Your task to perform on an android device: turn pop-ups on in chrome Image 0: 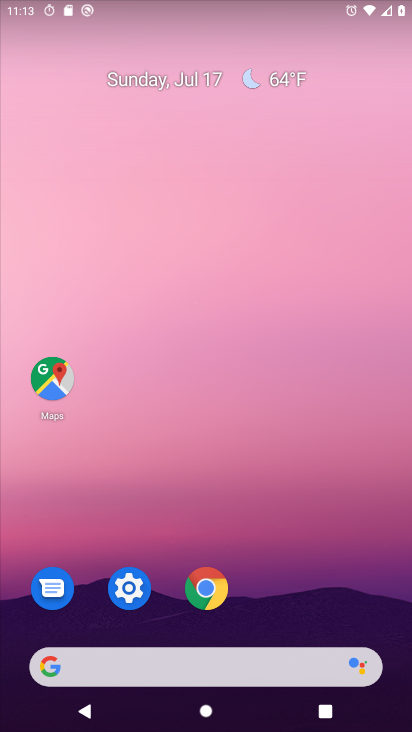
Step 0: drag from (247, 640) to (226, 207)
Your task to perform on an android device: turn pop-ups on in chrome Image 1: 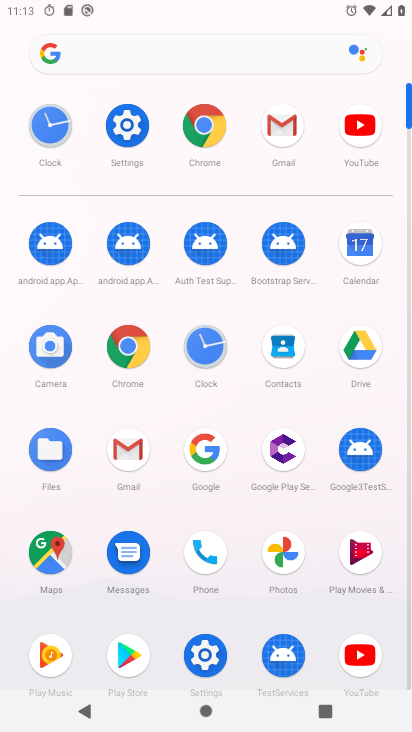
Step 1: click (219, 118)
Your task to perform on an android device: turn pop-ups on in chrome Image 2: 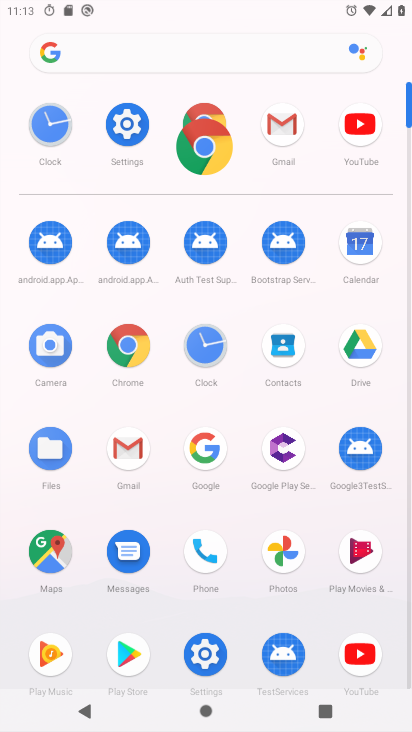
Step 2: click (210, 120)
Your task to perform on an android device: turn pop-ups on in chrome Image 3: 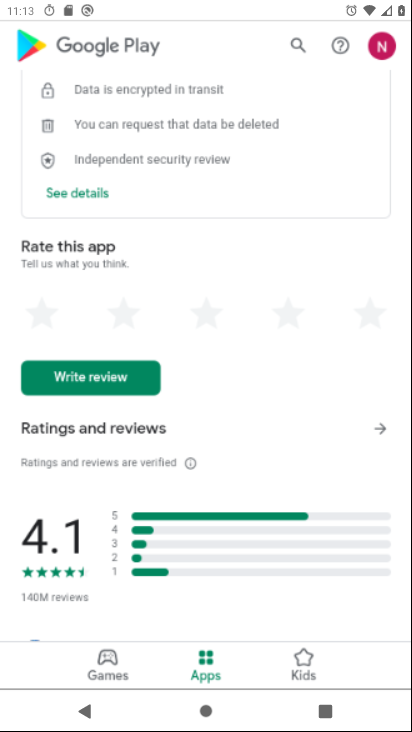
Step 3: click (210, 120)
Your task to perform on an android device: turn pop-ups on in chrome Image 4: 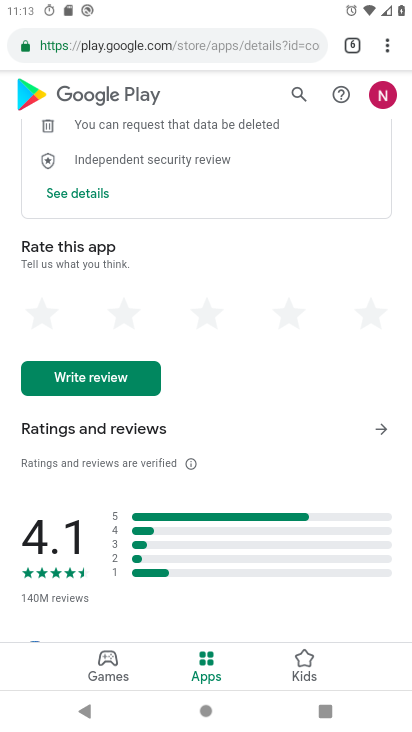
Step 4: press back button
Your task to perform on an android device: turn pop-ups on in chrome Image 5: 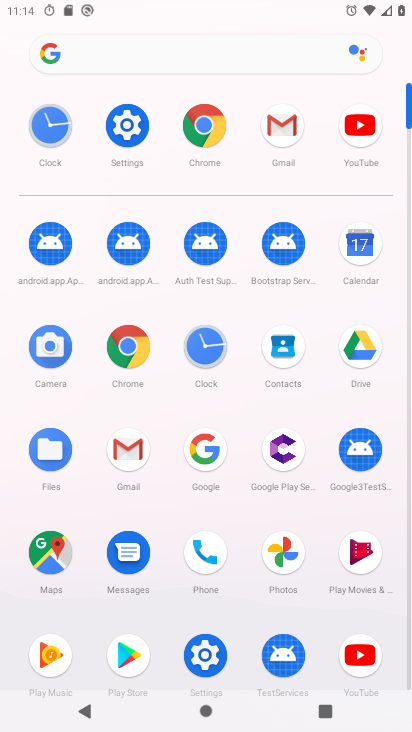
Step 5: click (199, 124)
Your task to perform on an android device: turn pop-ups on in chrome Image 6: 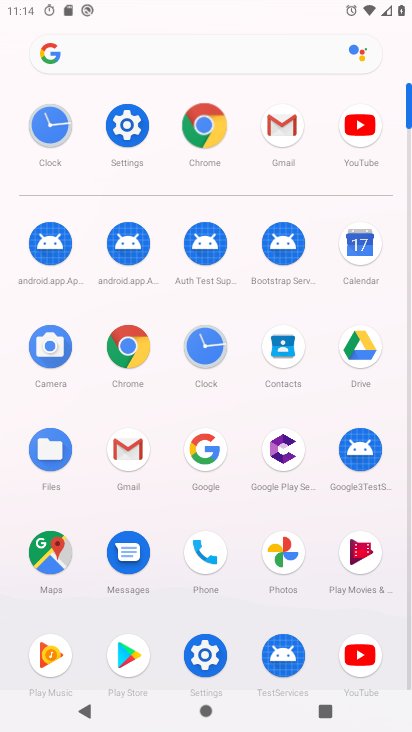
Step 6: click (199, 124)
Your task to perform on an android device: turn pop-ups on in chrome Image 7: 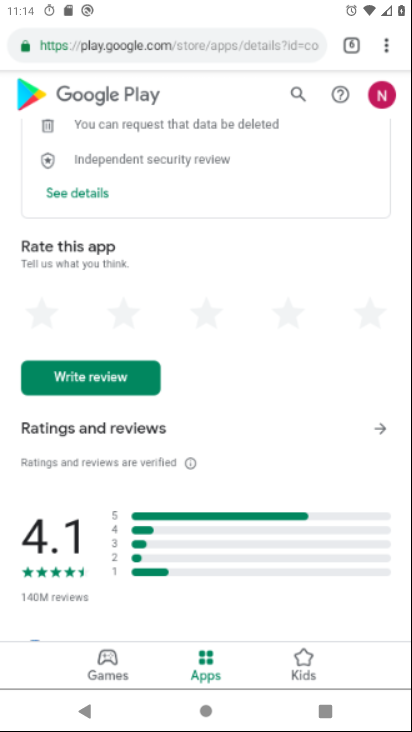
Step 7: drag from (393, 42) to (205, 546)
Your task to perform on an android device: turn pop-ups on in chrome Image 8: 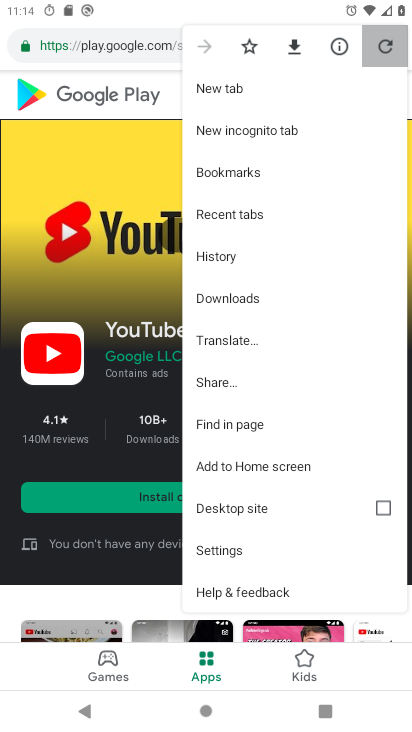
Step 8: click (204, 547)
Your task to perform on an android device: turn pop-ups on in chrome Image 9: 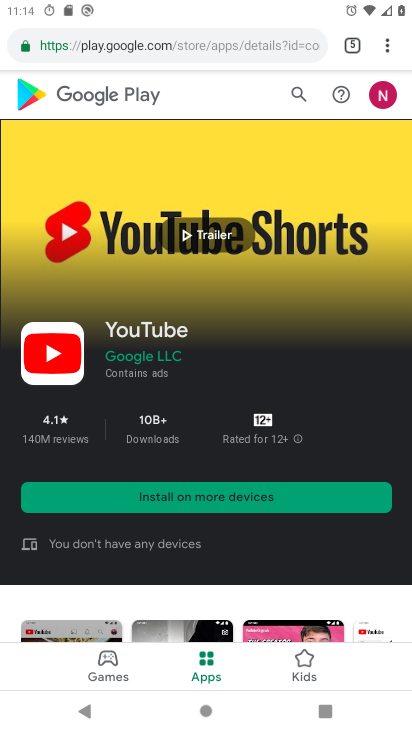
Step 9: click (202, 548)
Your task to perform on an android device: turn pop-ups on in chrome Image 10: 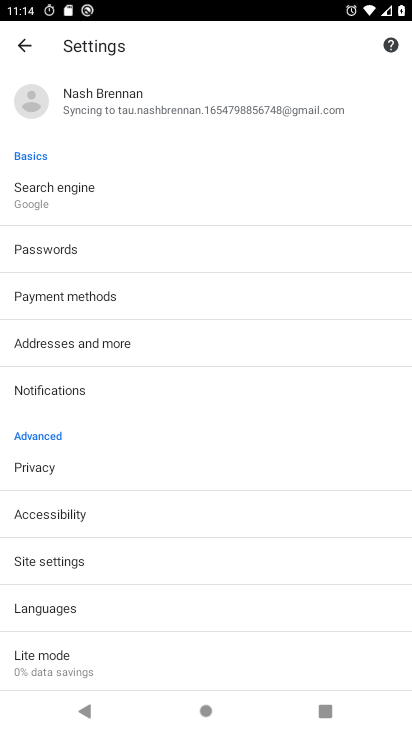
Step 10: click (113, 336)
Your task to perform on an android device: turn pop-ups on in chrome Image 11: 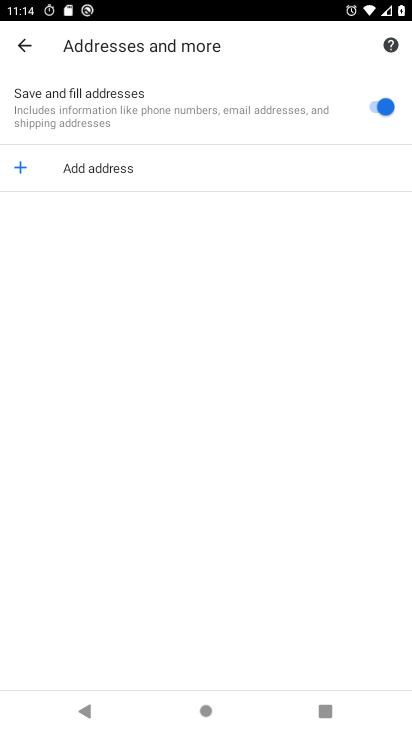
Step 11: click (23, 18)
Your task to perform on an android device: turn pop-ups on in chrome Image 12: 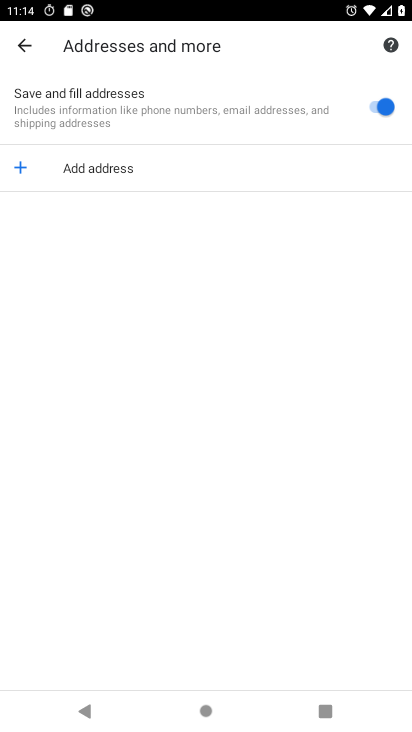
Step 12: click (26, 54)
Your task to perform on an android device: turn pop-ups on in chrome Image 13: 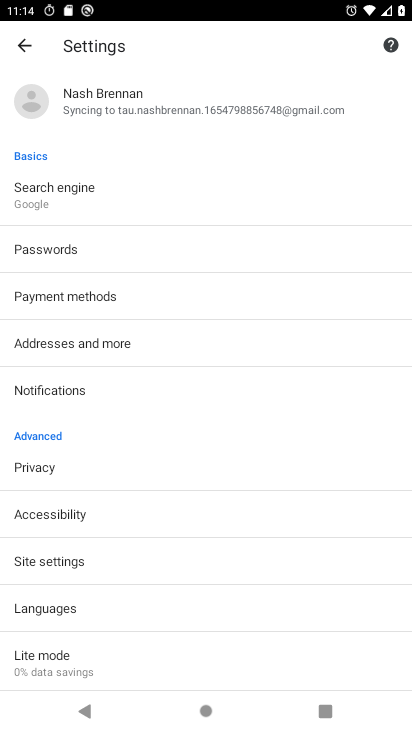
Step 13: click (39, 556)
Your task to perform on an android device: turn pop-ups on in chrome Image 14: 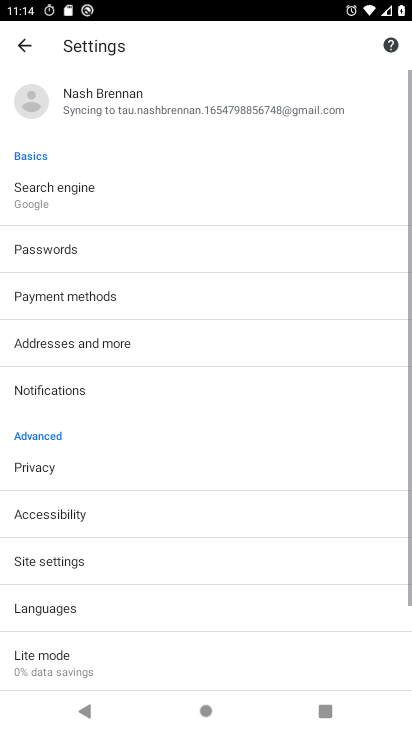
Step 14: click (39, 557)
Your task to perform on an android device: turn pop-ups on in chrome Image 15: 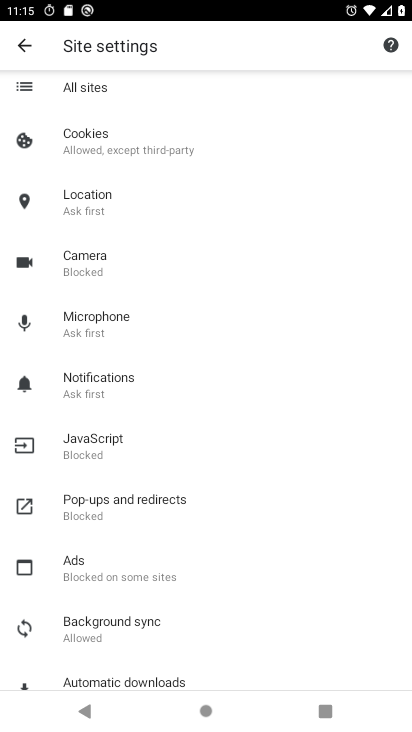
Step 15: click (95, 504)
Your task to perform on an android device: turn pop-ups on in chrome Image 16: 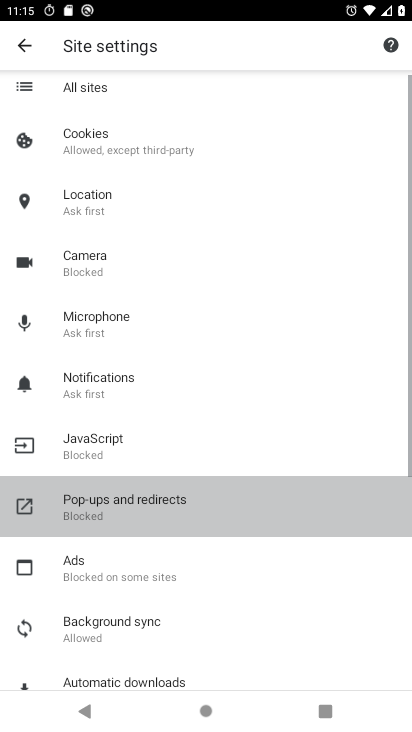
Step 16: click (95, 504)
Your task to perform on an android device: turn pop-ups on in chrome Image 17: 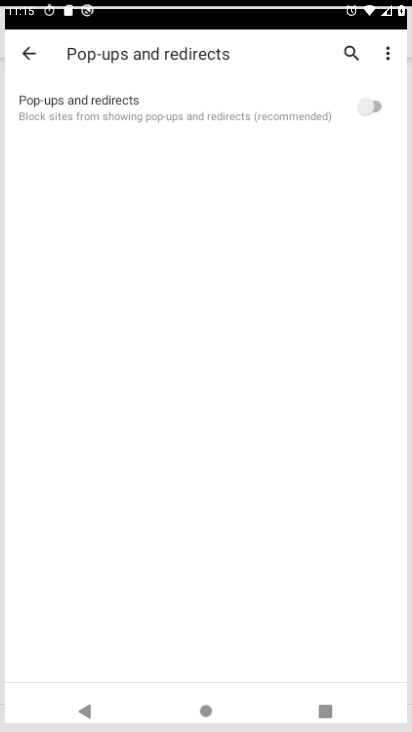
Step 17: click (97, 501)
Your task to perform on an android device: turn pop-ups on in chrome Image 18: 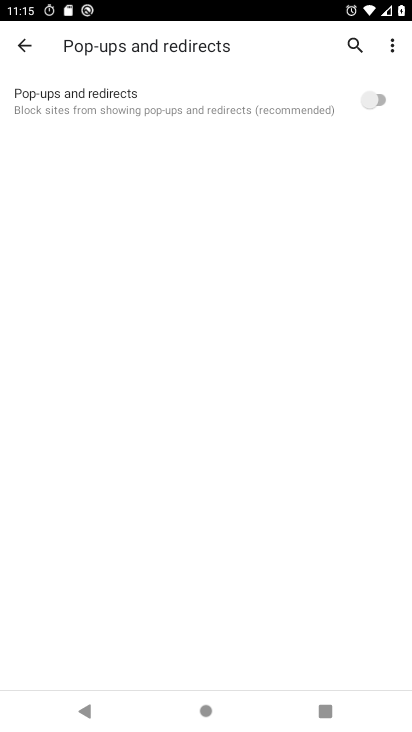
Step 18: click (372, 101)
Your task to perform on an android device: turn pop-ups on in chrome Image 19: 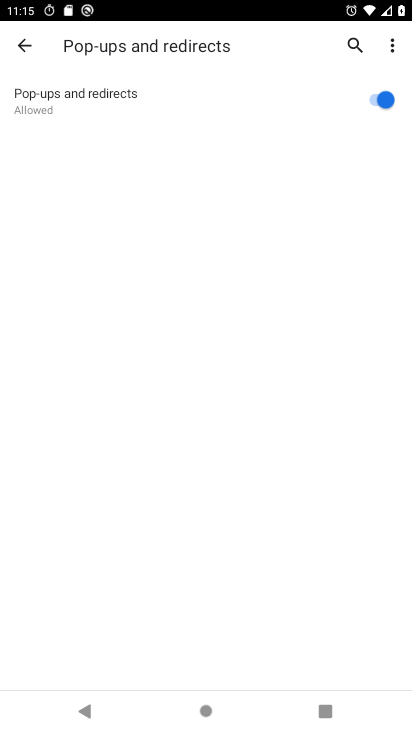
Step 19: task complete